Your task to perform on an android device: Open the calendar and show me this week's events? Image 0: 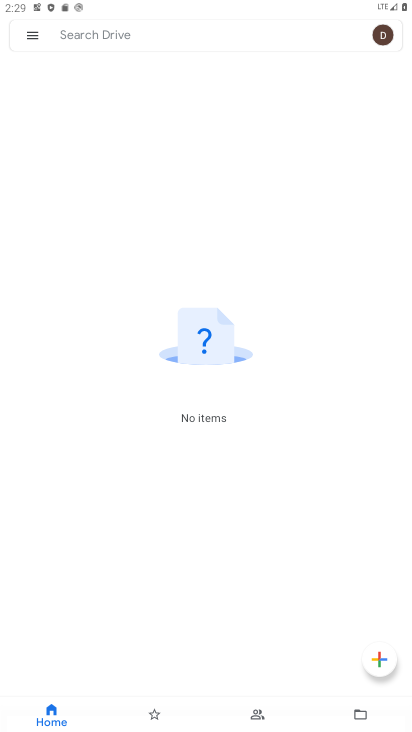
Step 0: press home button
Your task to perform on an android device: Open the calendar and show me this week's events? Image 1: 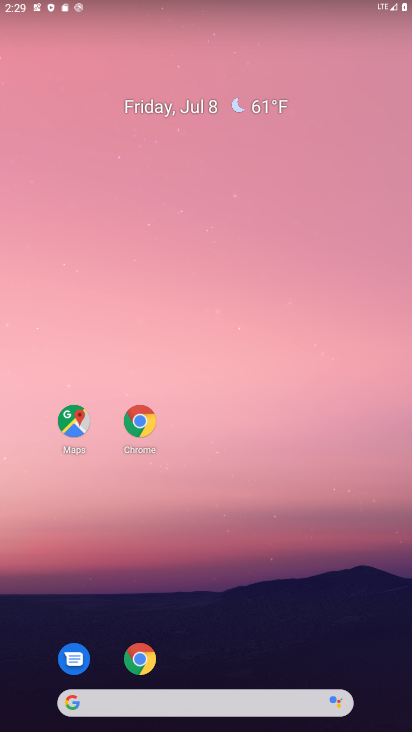
Step 1: drag from (229, 660) to (157, 207)
Your task to perform on an android device: Open the calendar and show me this week's events? Image 2: 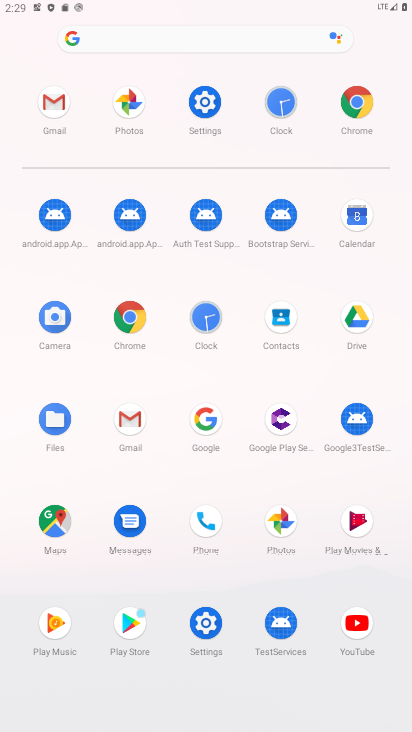
Step 2: click (355, 215)
Your task to perform on an android device: Open the calendar and show me this week's events? Image 3: 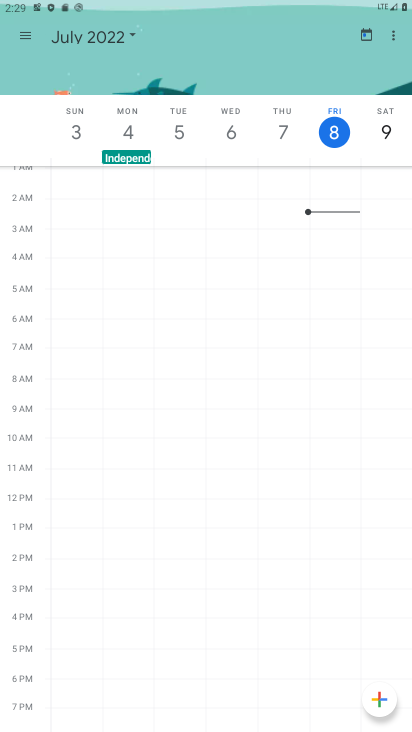
Step 3: task complete